Your task to perform on an android device: turn on data saver in the chrome app Image 0: 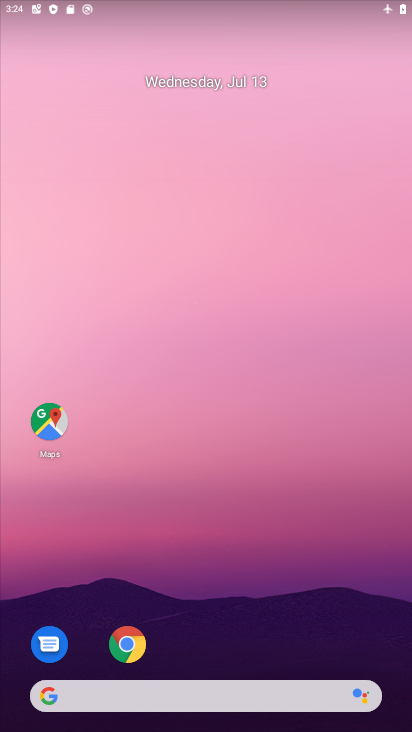
Step 0: drag from (293, 628) to (223, 0)
Your task to perform on an android device: turn on data saver in the chrome app Image 1: 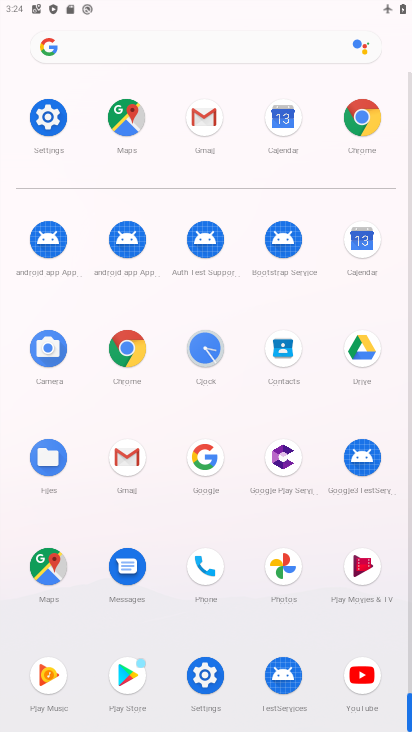
Step 1: click (363, 115)
Your task to perform on an android device: turn on data saver in the chrome app Image 2: 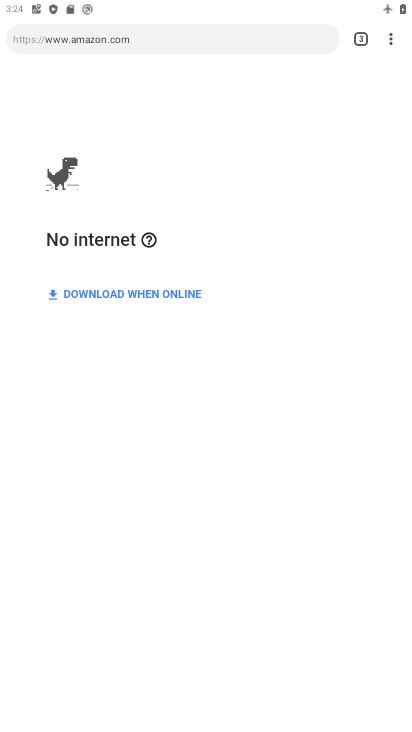
Step 2: drag from (393, 33) to (250, 419)
Your task to perform on an android device: turn on data saver in the chrome app Image 3: 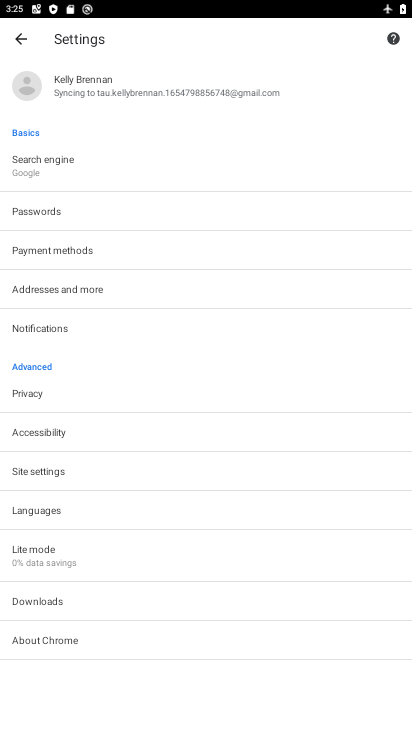
Step 3: click (73, 548)
Your task to perform on an android device: turn on data saver in the chrome app Image 4: 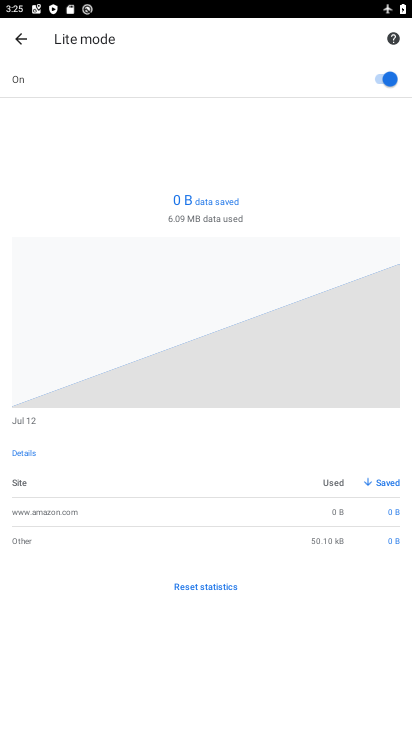
Step 4: task complete